Your task to perform on an android device: all mails in gmail Image 0: 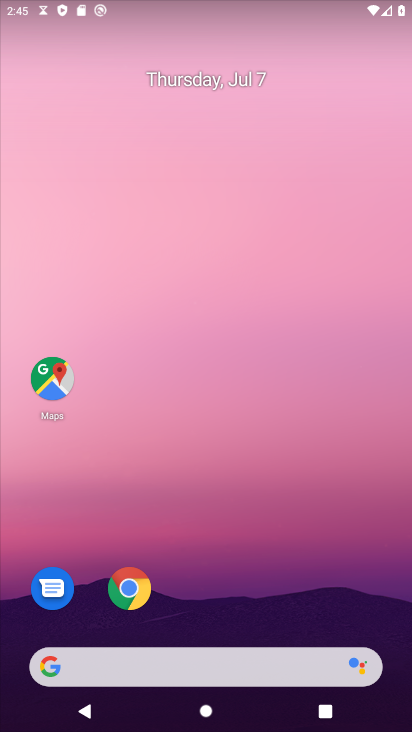
Step 0: drag from (299, 599) to (232, 143)
Your task to perform on an android device: all mails in gmail Image 1: 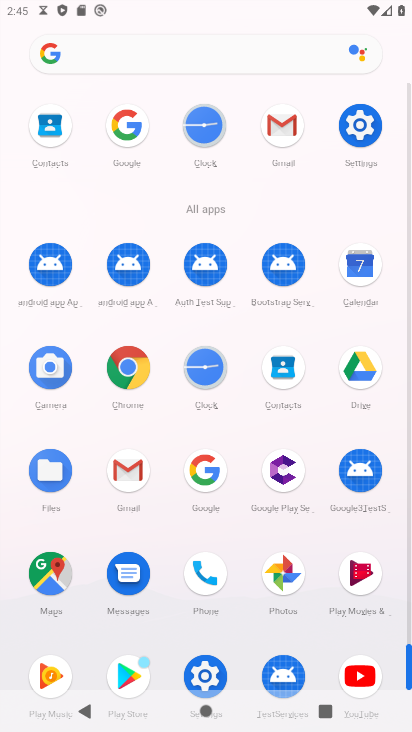
Step 1: click (283, 122)
Your task to perform on an android device: all mails in gmail Image 2: 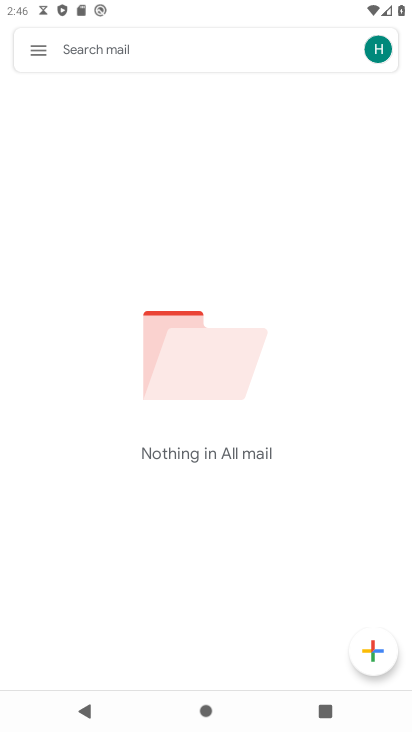
Step 2: task complete